Your task to perform on an android device: change text size in settings app Image 0: 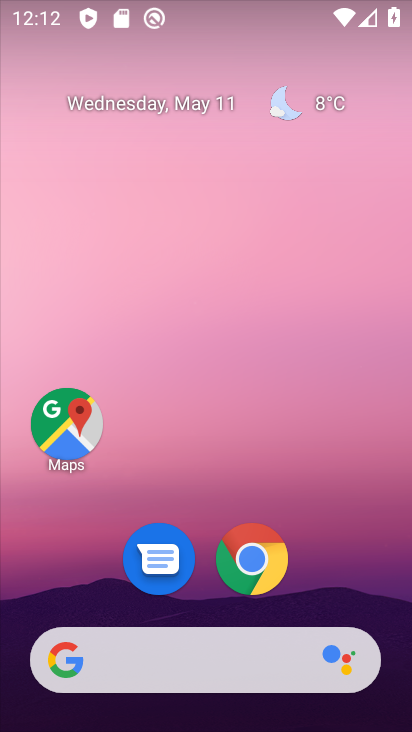
Step 0: drag from (314, 567) to (179, 13)
Your task to perform on an android device: change text size in settings app Image 1: 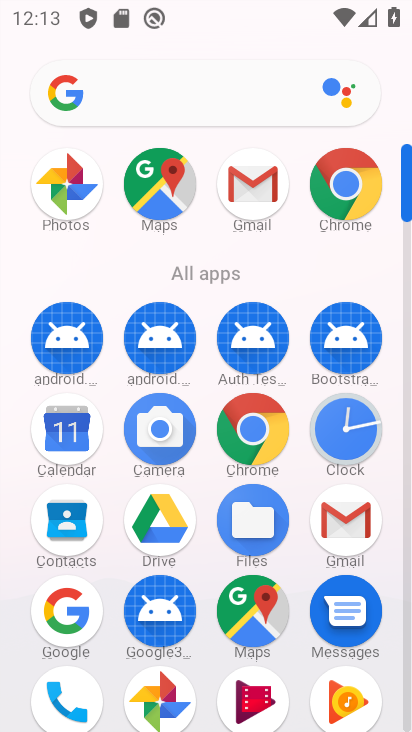
Step 1: drag from (7, 587) to (20, 190)
Your task to perform on an android device: change text size in settings app Image 2: 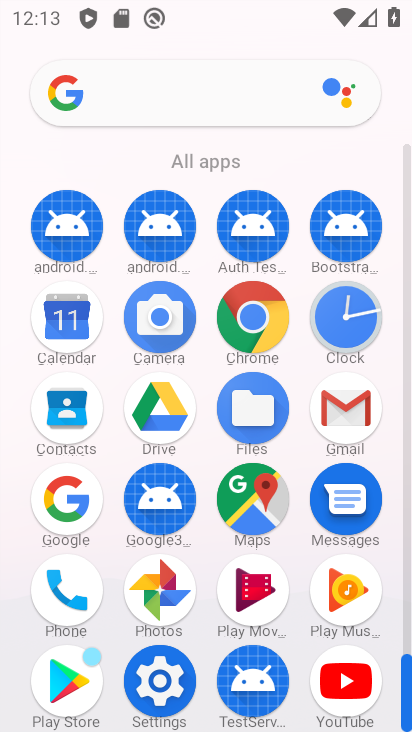
Step 2: click (160, 683)
Your task to perform on an android device: change text size in settings app Image 3: 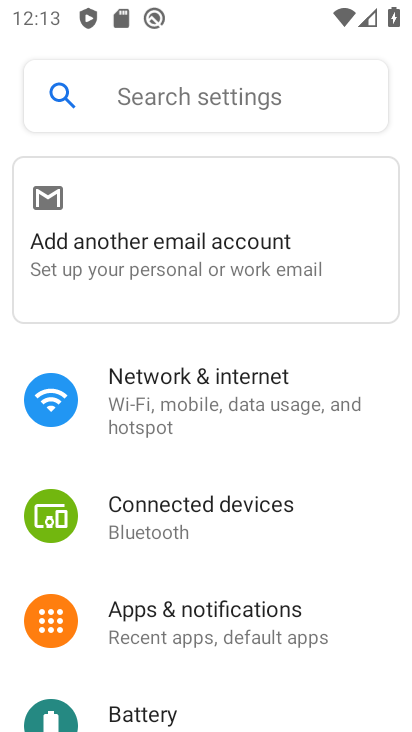
Step 3: drag from (281, 554) to (293, 208)
Your task to perform on an android device: change text size in settings app Image 4: 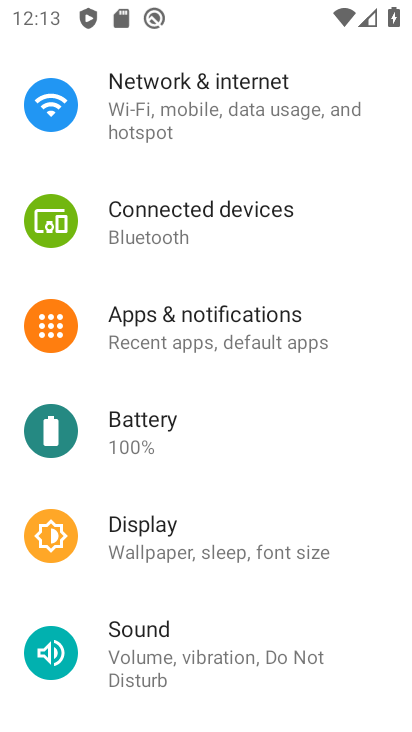
Step 4: drag from (245, 626) to (257, 342)
Your task to perform on an android device: change text size in settings app Image 5: 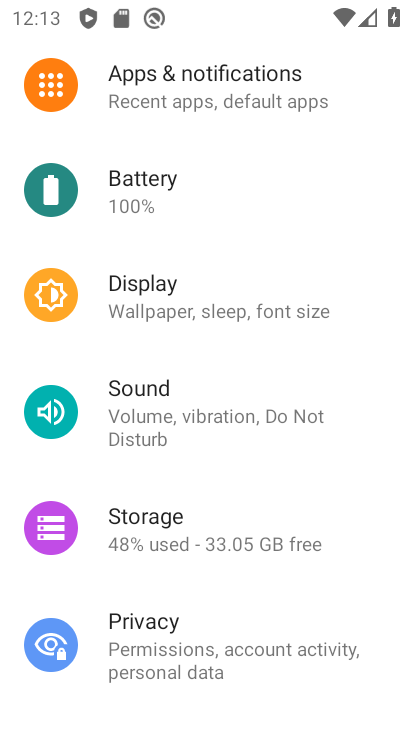
Step 5: click (202, 302)
Your task to perform on an android device: change text size in settings app Image 6: 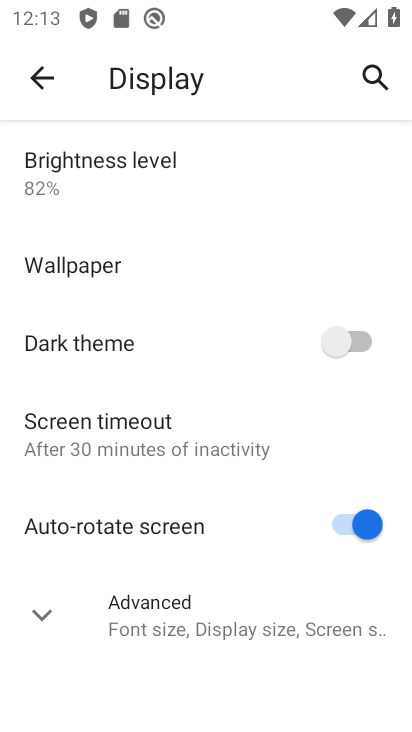
Step 6: drag from (176, 532) to (198, 190)
Your task to perform on an android device: change text size in settings app Image 7: 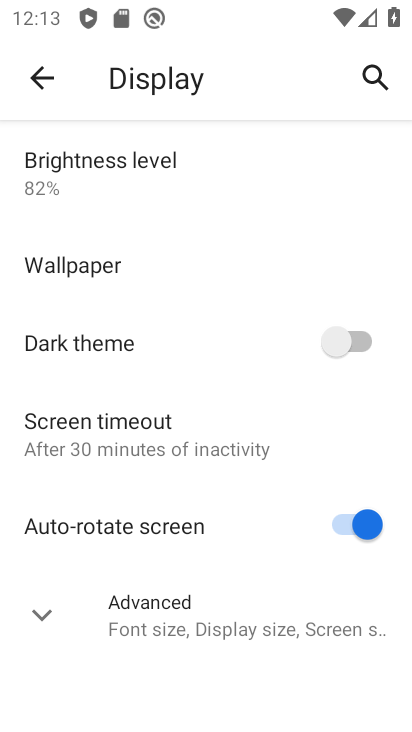
Step 7: click (100, 601)
Your task to perform on an android device: change text size in settings app Image 8: 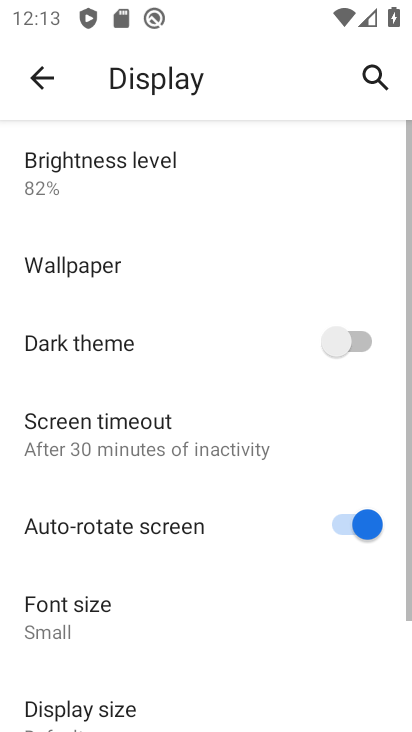
Step 8: drag from (170, 552) to (184, 172)
Your task to perform on an android device: change text size in settings app Image 9: 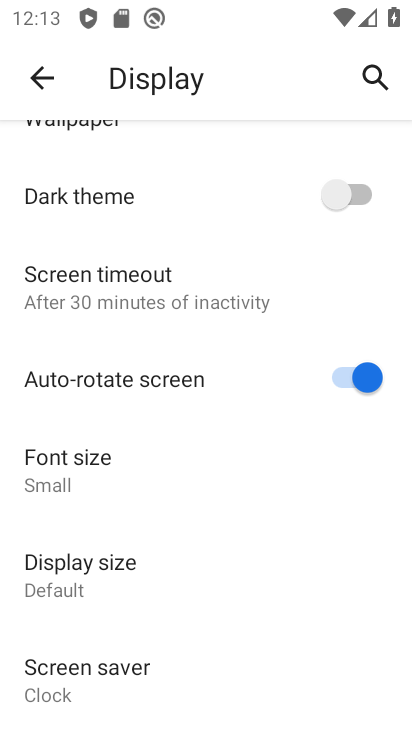
Step 9: click (113, 473)
Your task to perform on an android device: change text size in settings app Image 10: 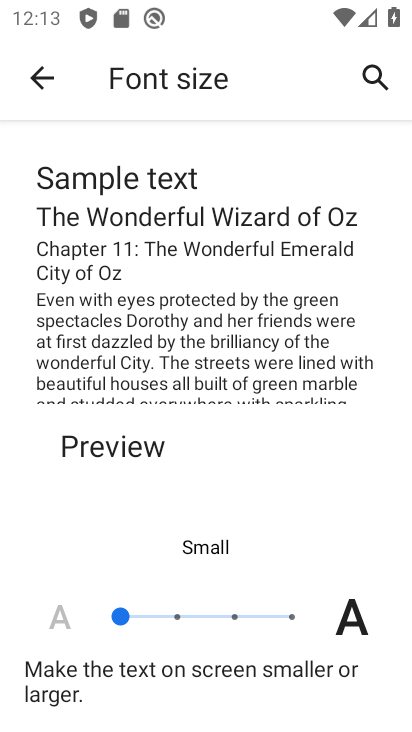
Step 10: click (232, 609)
Your task to perform on an android device: change text size in settings app Image 11: 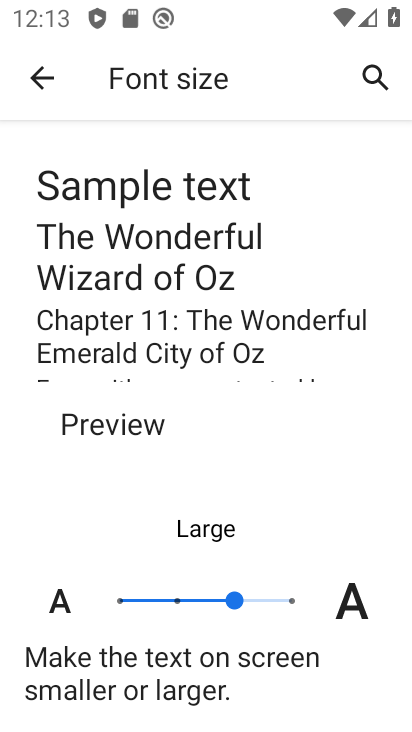
Step 11: click (283, 600)
Your task to perform on an android device: change text size in settings app Image 12: 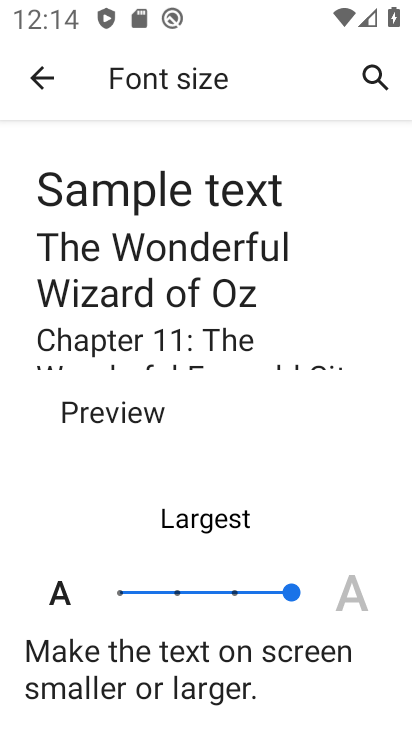
Step 12: task complete